Your task to perform on an android device: Set the phone to "Do not disturb". Image 0: 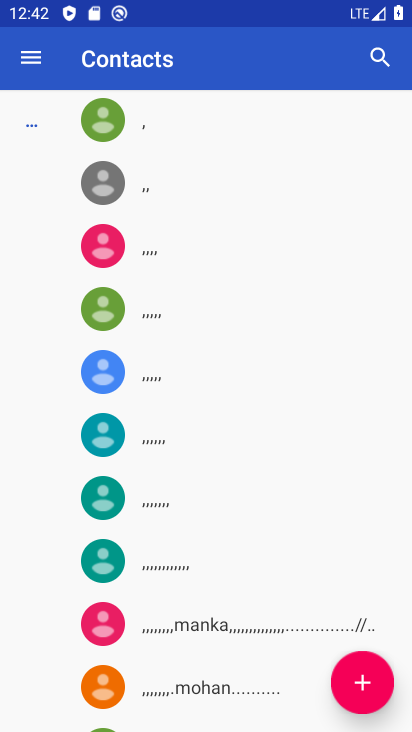
Step 0: press home button
Your task to perform on an android device: Set the phone to "Do not disturb". Image 1: 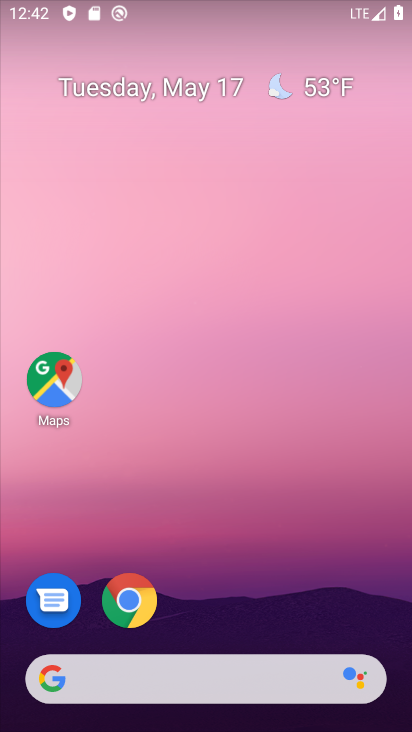
Step 1: drag from (211, 609) to (68, 244)
Your task to perform on an android device: Set the phone to "Do not disturb". Image 2: 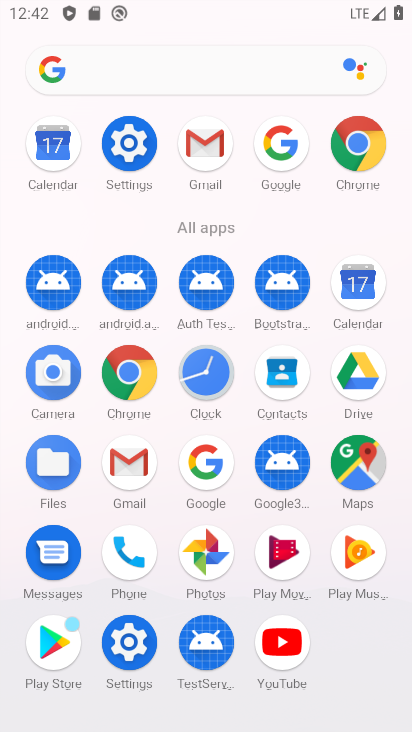
Step 2: drag from (298, 350) to (252, 150)
Your task to perform on an android device: Set the phone to "Do not disturb". Image 3: 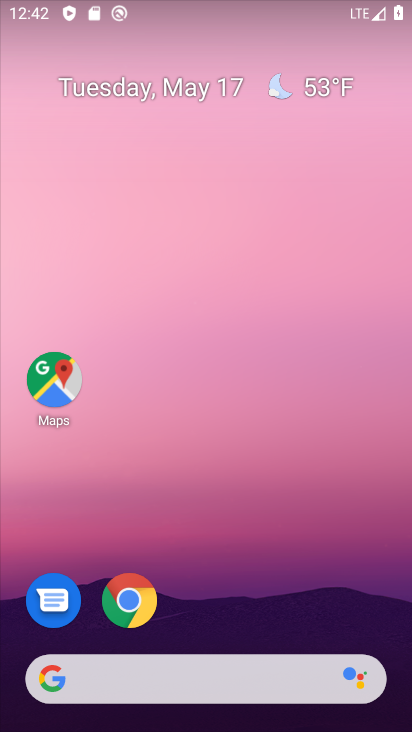
Step 3: click (80, 15)
Your task to perform on an android device: Set the phone to "Do not disturb". Image 4: 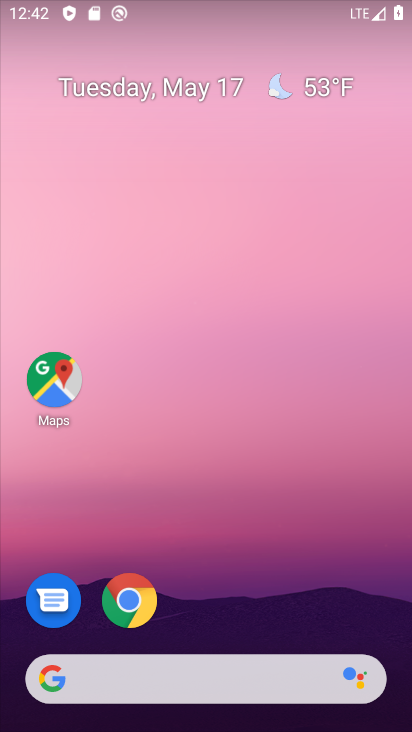
Step 4: drag from (235, 611) to (119, 72)
Your task to perform on an android device: Set the phone to "Do not disturb". Image 5: 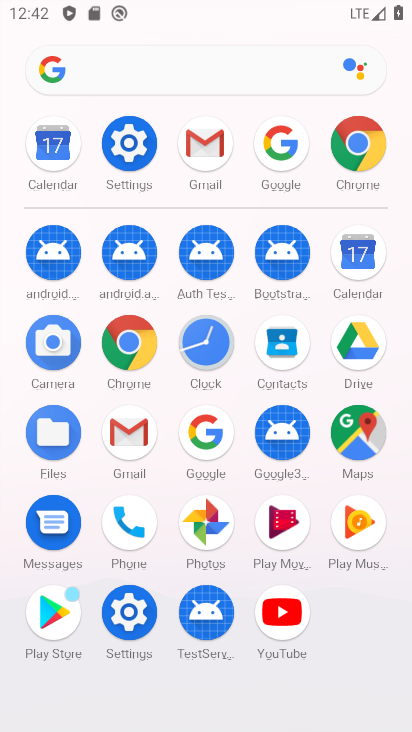
Step 5: click (134, 151)
Your task to perform on an android device: Set the phone to "Do not disturb". Image 6: 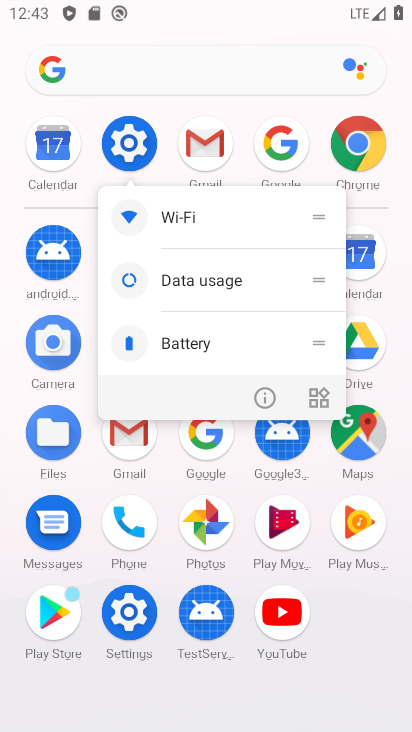
Step 6: click (116, 621)
Your task to perform on an android device: Set the phone to "Do not disturb". Image 7: 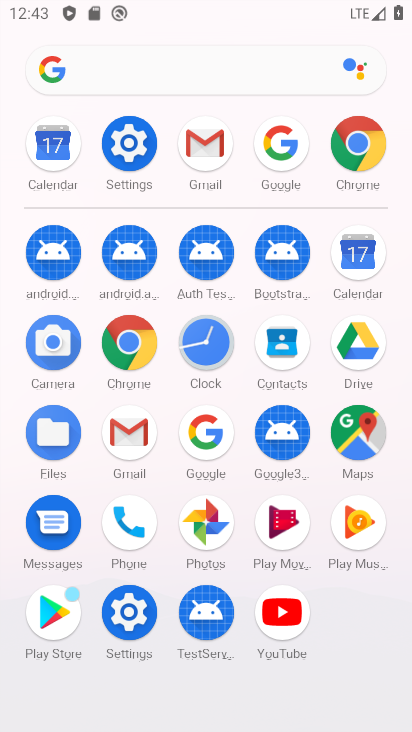
Step 7: click (133, 616)
Your task to perform on an android device: Set the phone to "Do not disturb". Image 8: 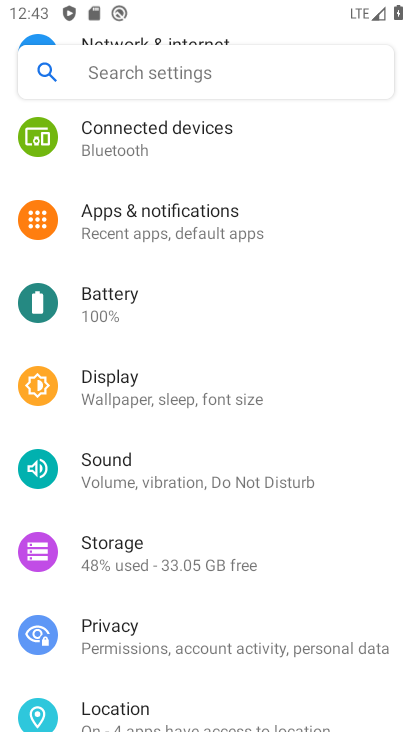
Step 8: click (77, 479)
Your task to perform on an android device: Set the phone to "Do not disturb". Image 9: 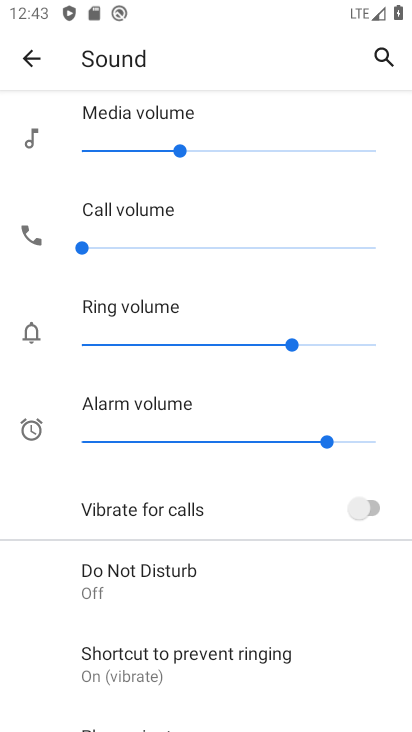
Step 9: click (162, 570)
Your task to perform on an android device: Set the phone to "Do not disturb". Image 10: 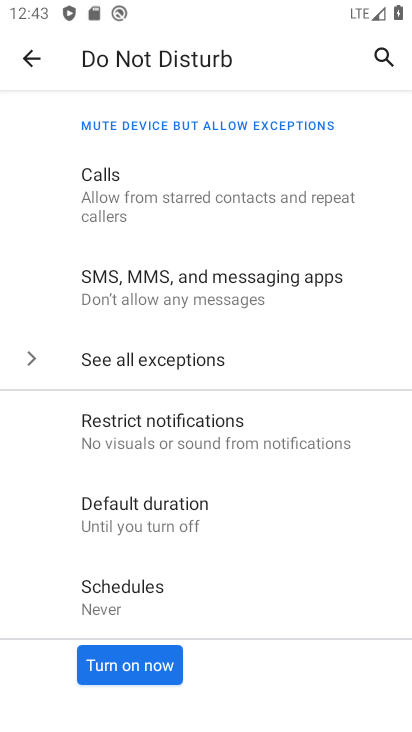
Step 10: click (92, 670)
Your task to perform on an android device: Set the phone to "Do not disturb". Image 11: 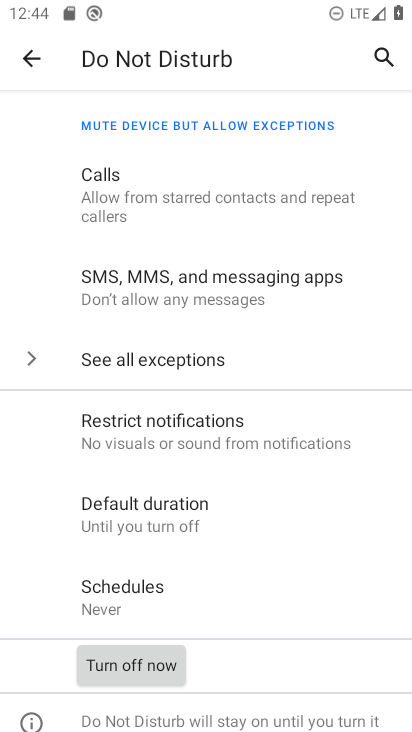
Step 11: task complete